Your task to perform on an android device: Open calendar and show me the first week of next month Image 0: 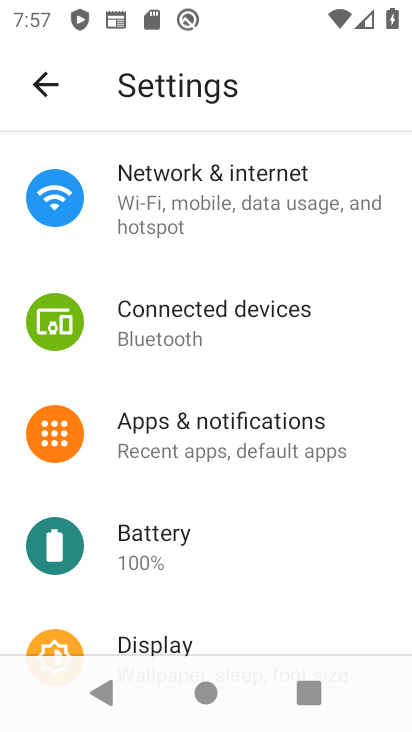
Step 0: press home button
Your task to perform on an android device: Open calendar and show me the first week of next month Image 1: 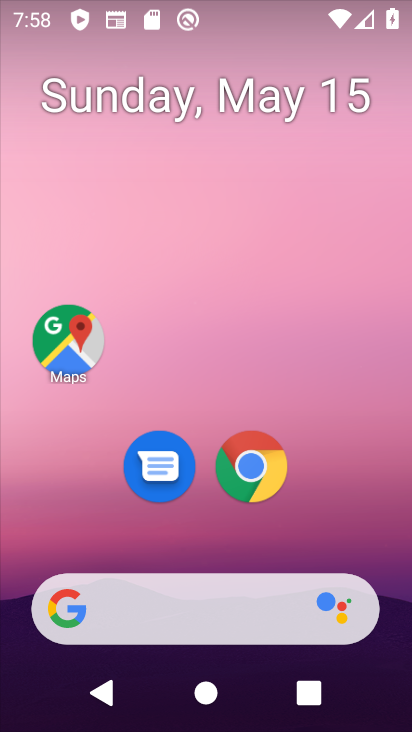
Step 1: drag from (189, 575) to (238, 11)
Your task to perform on an android device: Open calendar and show me the first week of next month Image 2: 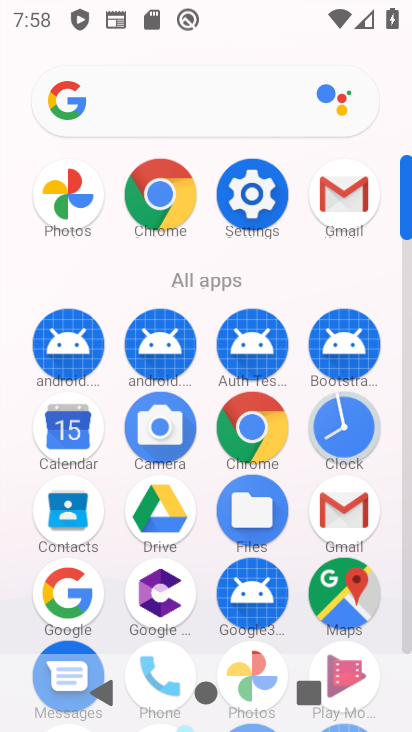
Step 2: click (79, 434)
Your task to perform on an android device: Open calendar and show me the first week of next month Image 3: 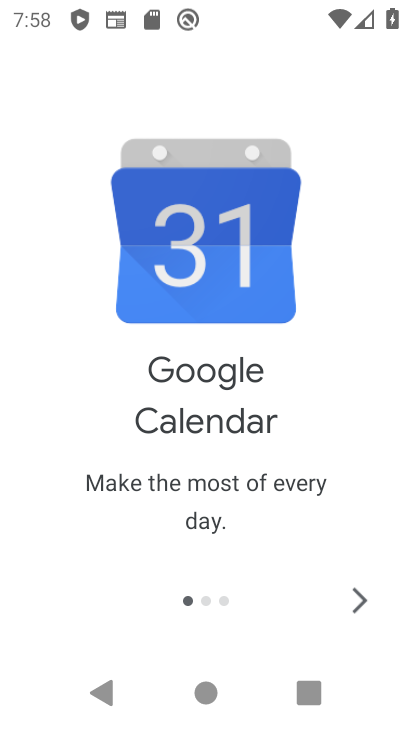
Step 3: click (357, 594)
Your task to perform on an android device: Open calendar and show me the first week of next month Image 4: 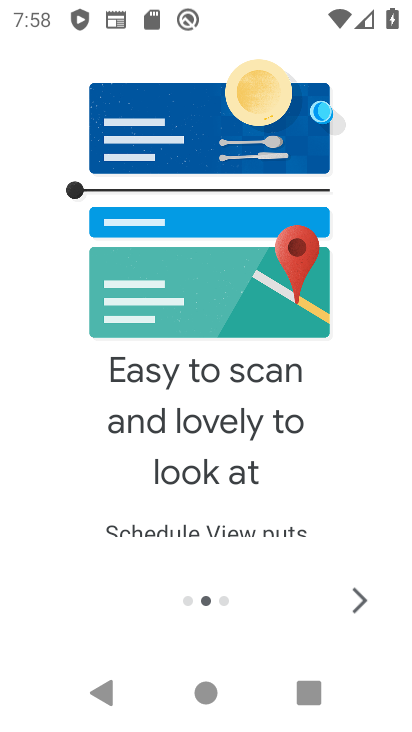
Step 4: click (357, 592)
Your task to perform on an android device: Open calendar and show me the first week of next month Image 5: 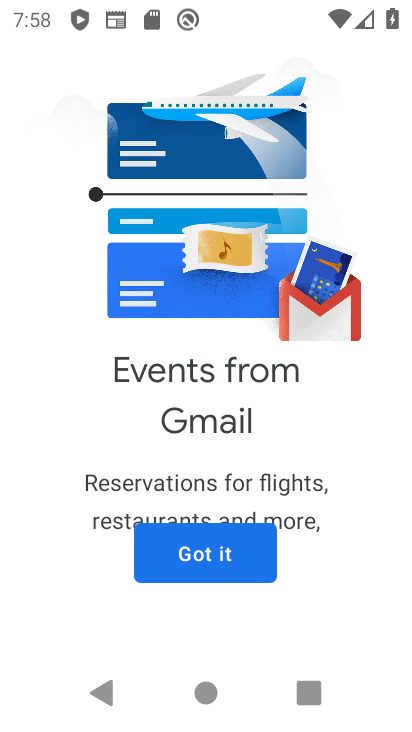
Step 5: click (233, 560)
Your task to perform on an android device: Open calendar and show me the first week of next month Image 6: 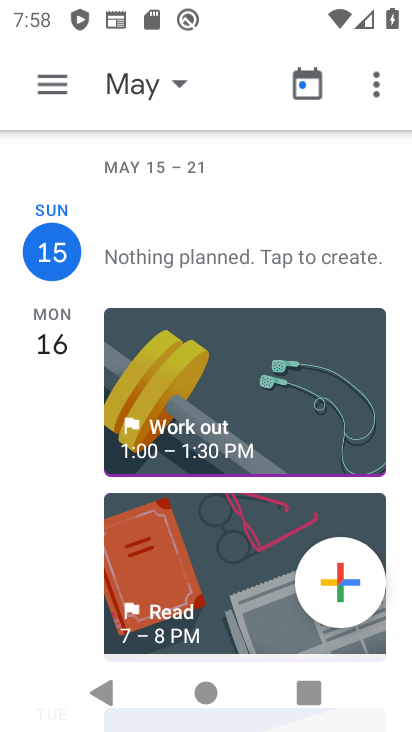
Step 6: click (46, 76)
Your task to perform on an android device: Open calendar and show me the first week of next month Image 7: 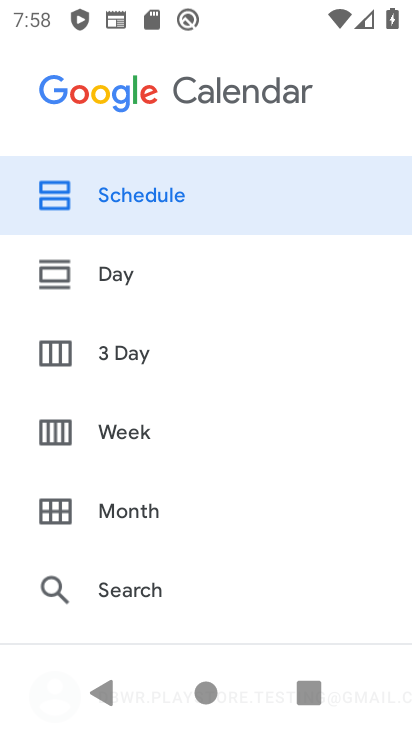
Step 7: click (139, 413)
Your task to perform on an android device: Open calendar and show me the first week of next month Image 8: 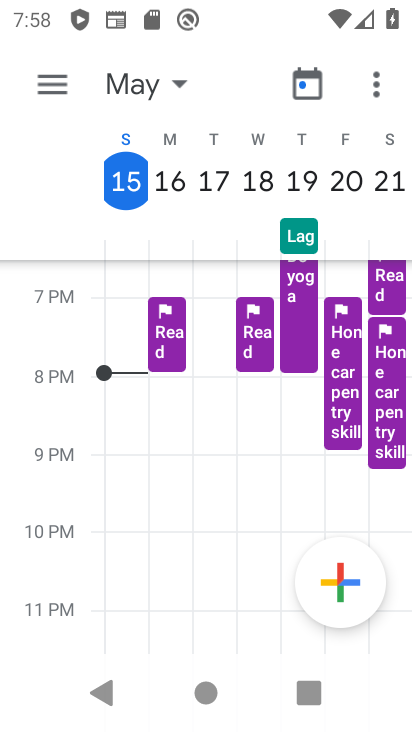
Step 8: task complete